Your task to perform on an android device: set the timer Image 0: 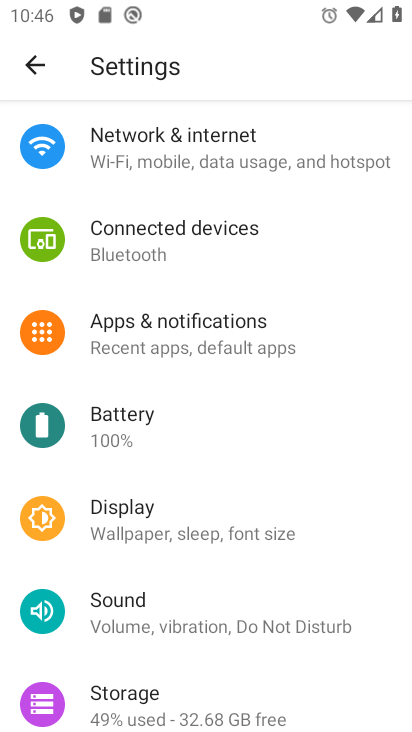
Step 0: press home button
Your task to perform on an android device: set the timer Image 1: 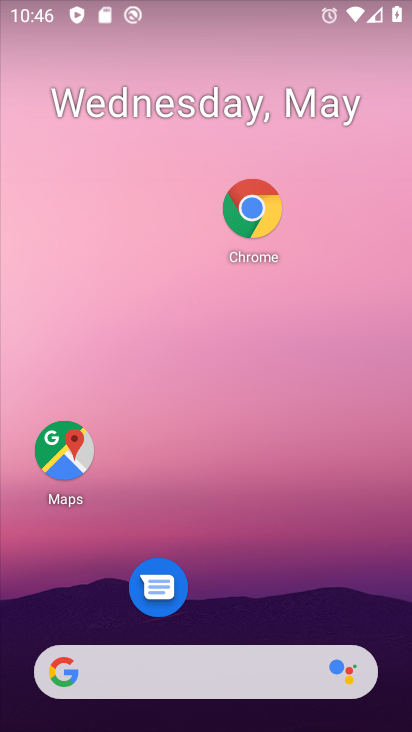
Step 1: drag from (191, 564) to (184, 213)
Your task to perform on an android device: set the timer Image 2: 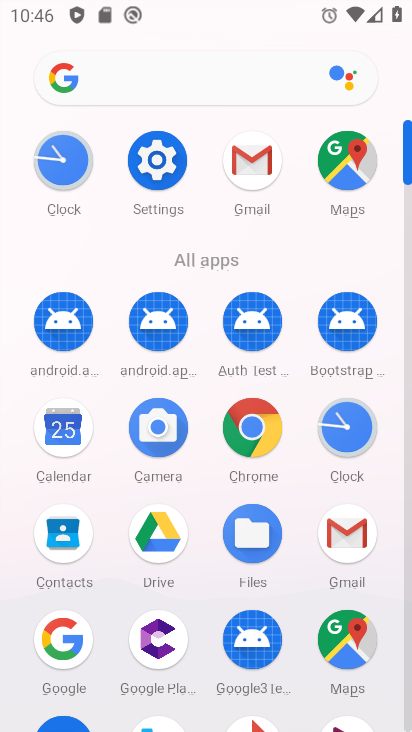
Step 2: click (359, 423)
Your task to perform on an android device: set the timer Image 3: 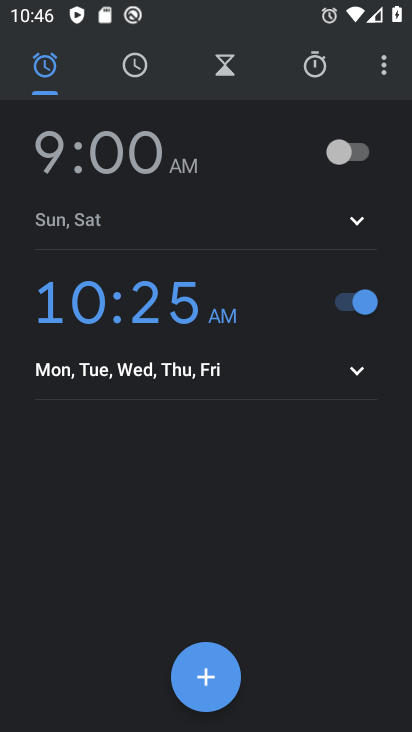
Step 3: click (224, 78)
Your task to perform on an android device: set the timer Image 4: 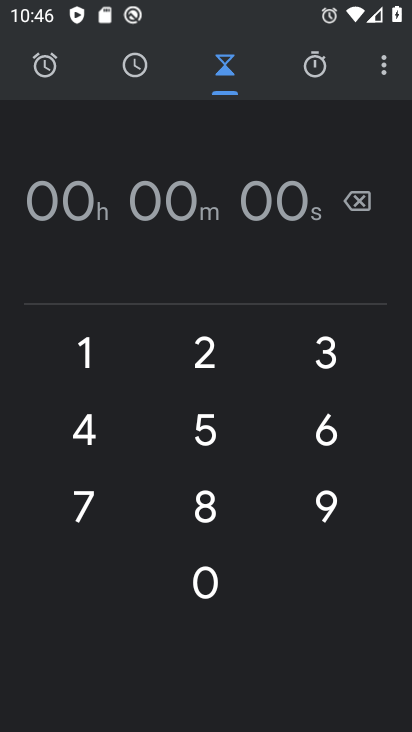
Step 4: click (196, 352)
Your task to perform on an android device: set the timer Image 5: 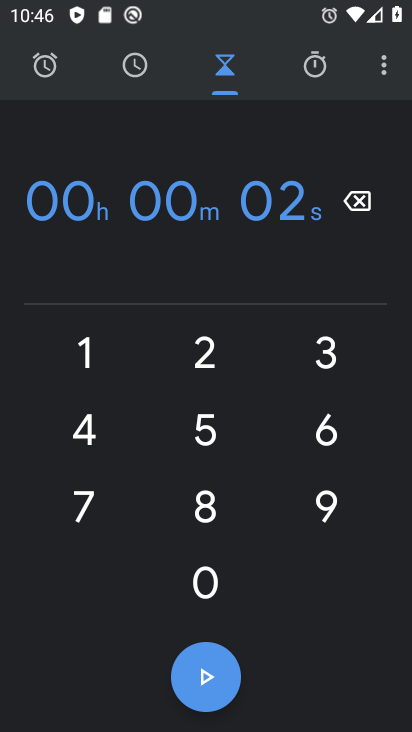
Step 5: click (198, 579)
Your task to perform on an android device: set the timer Image 6: 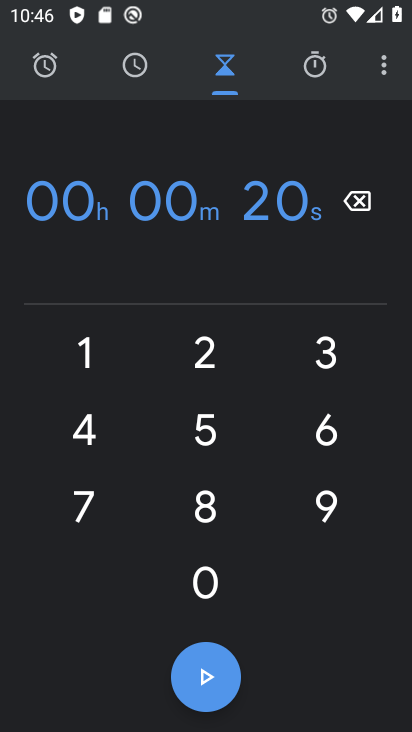
Step 6: click (212, 357)
Your task to perform on an android device: set the timer Image 7: 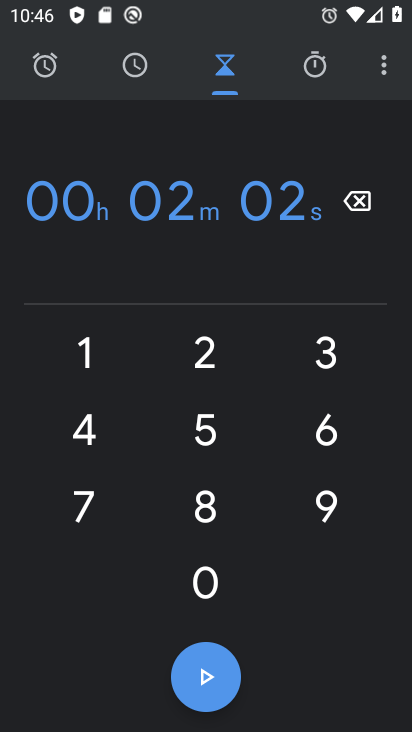
Step 7: click (199, 587)
Your task to perform on an android device: set the timer Image 8: 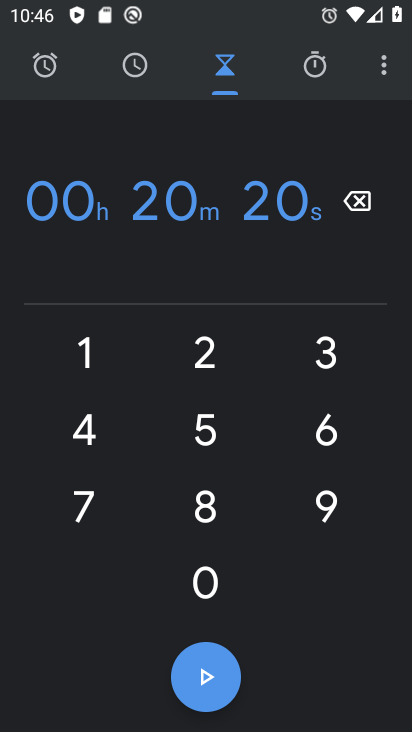
Step 8: click (196, 671)
Your task to perform on an android device: set the timer Image 9: 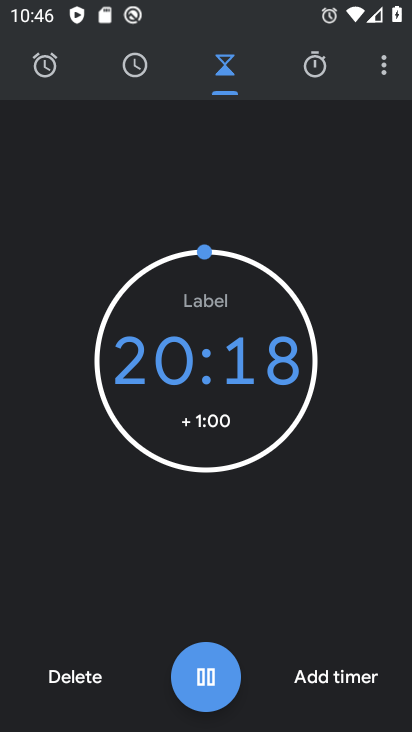
Step 9: click (308, 677)
Your task to perform on an android device: set the timer Image 10: 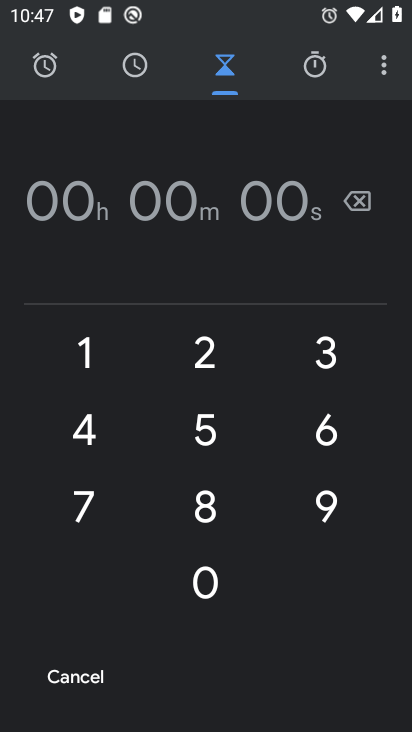
Step 10: task complete